Your task to perform on an android device: Go to Google Image 0: 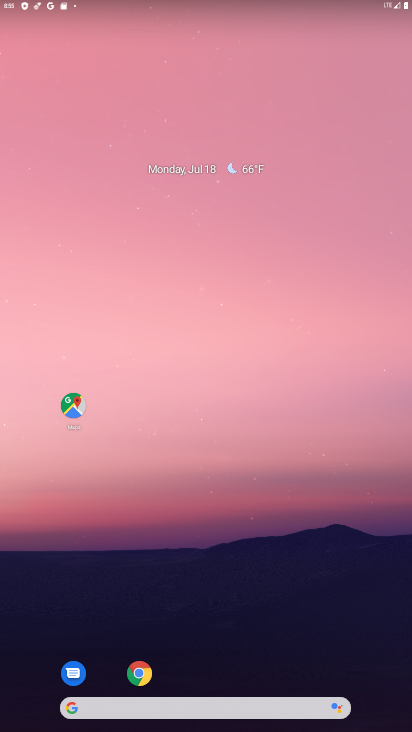
Step 0: drag from (239, 539) to (248, 127)
Your task to perform on an android device: Go to Google Image 1: 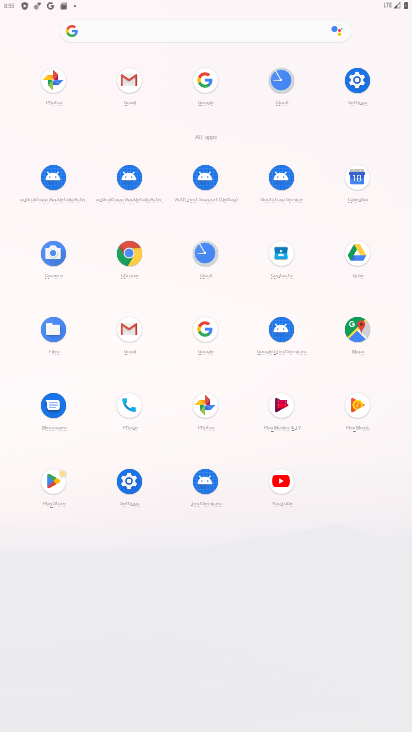
Step 1: click (209, 79)
Your task to perform on an android device: Go to Google Image 2: 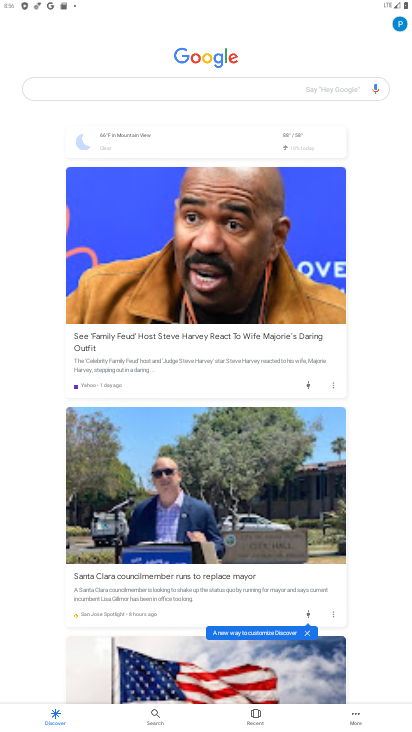
Step 2: task complete